Your task to perform on an android device: set the timer Image 0: 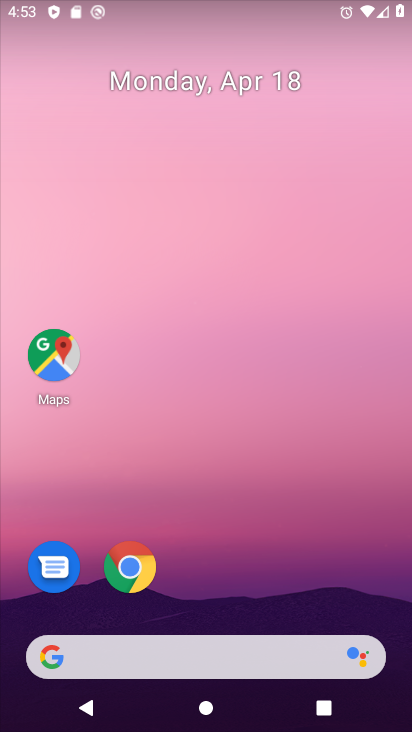
Step 0: drag from (221, 602) to (218, 85)
Your task to perform on an android device: set the timer Image 1: 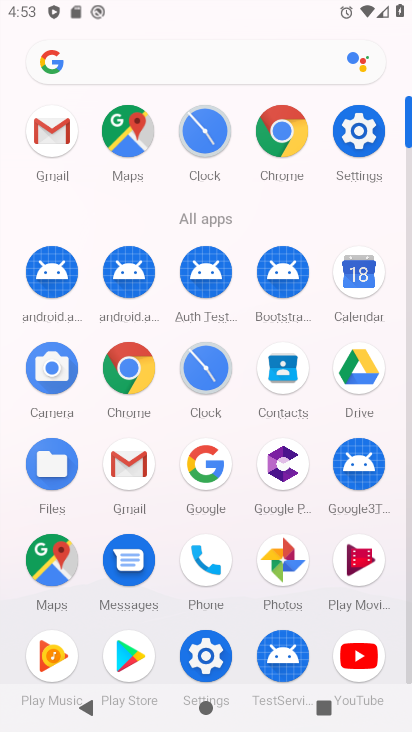
Step 1: click (205, 364)
Your task to perform on an android device: set the timer Image 2: 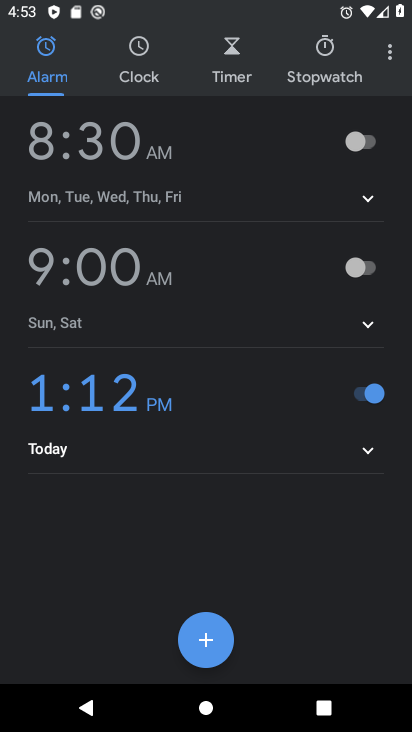
Step 2: click (237, 62)
Your task to perform on an android device: set the timer Image 3: 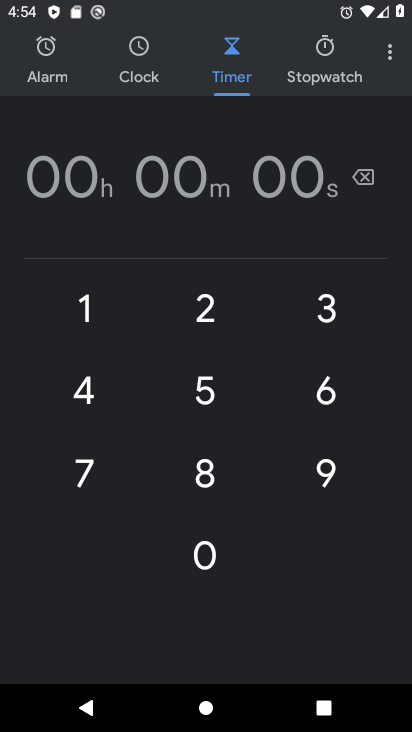
Step 3: type "123"
Your task to perform on an android device: set the timer Image 4: 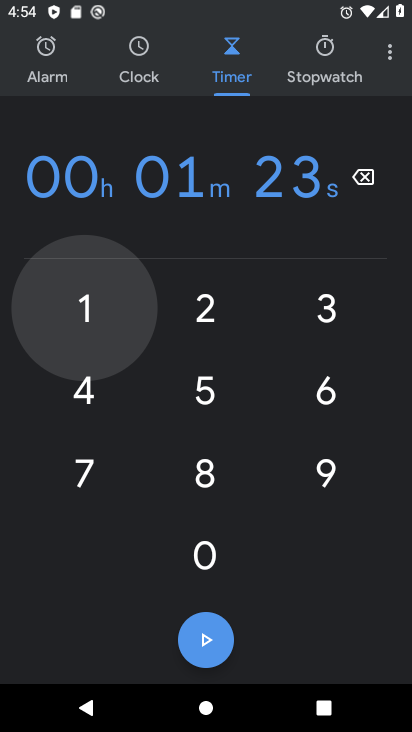
Step 4: click (221, 644)
Your task to perform on an android device: set the timer Image 5: 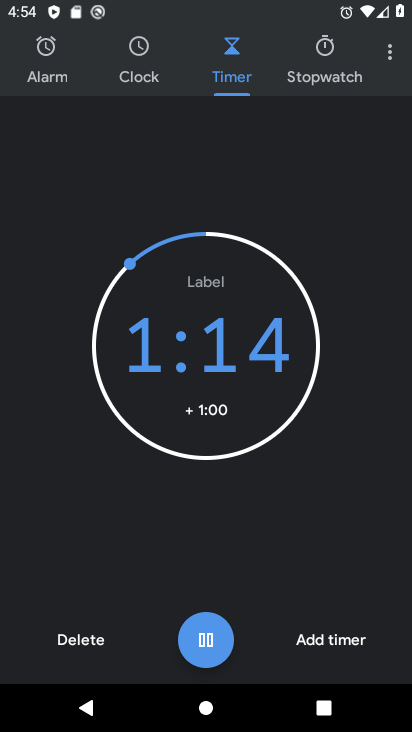
Step 5: click (211, 655)
Your task to perform on an android device: set the timer Image 6: 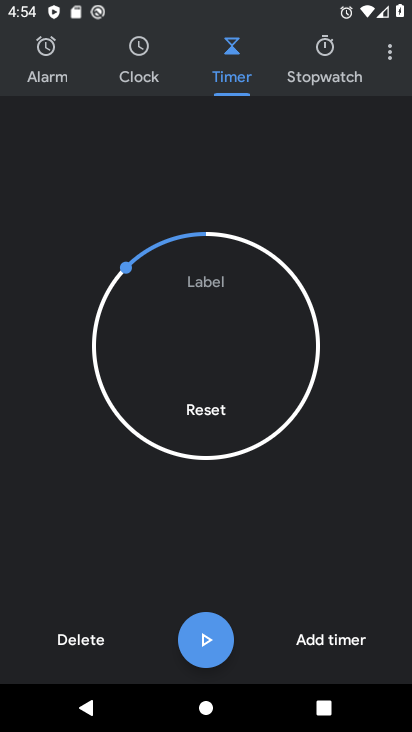
Step 6: task complete